Your task to perform on an android device: add a contact Image 0: 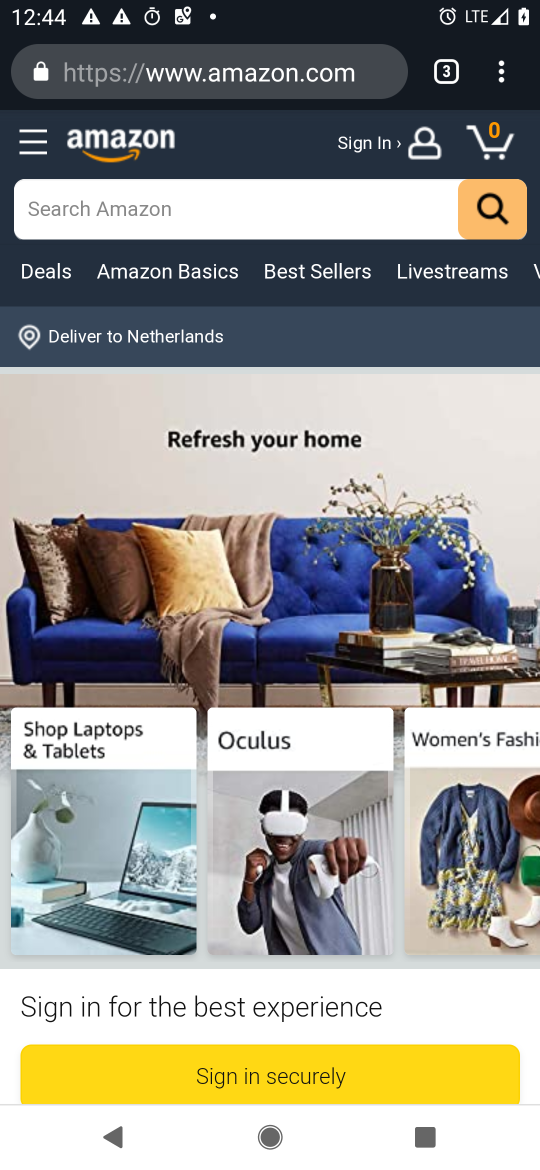
Step 0: press home button
Your task to perform on an android device: add a contact Image 1: 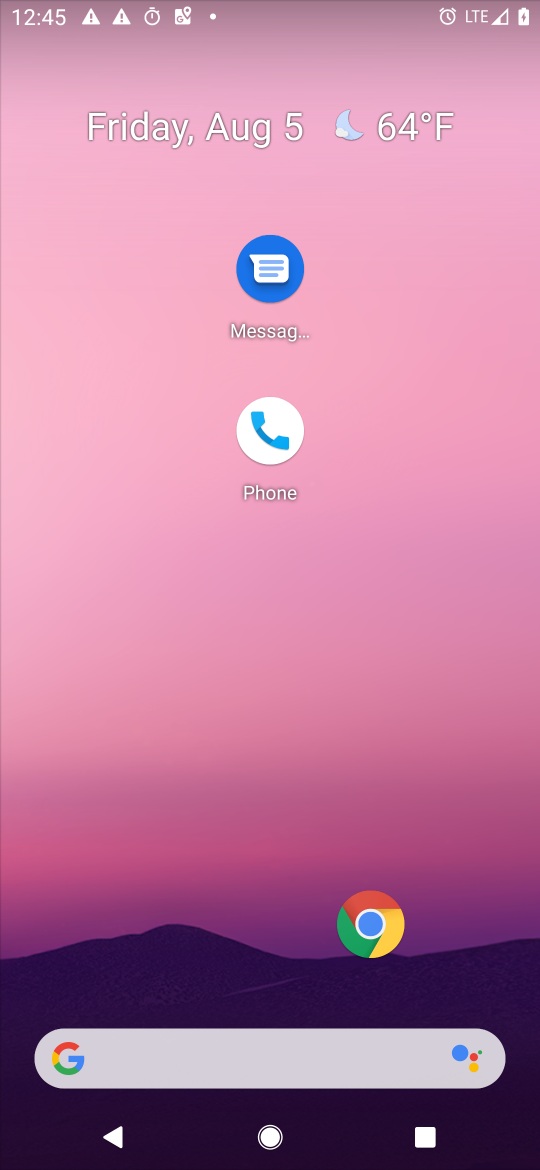
Step 1: click (340, 570)
Your task to perform on an android device: add a contact Image 2: 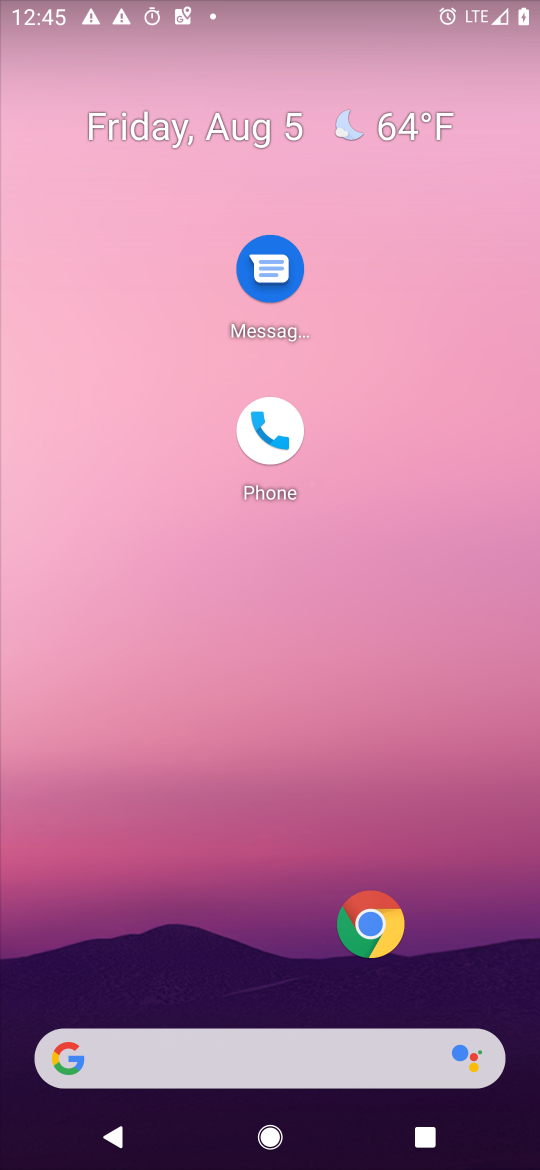
Step 2: drag from (278, 960) to (388, 232)
Your task to perform on an android device: add a contact Image 3: 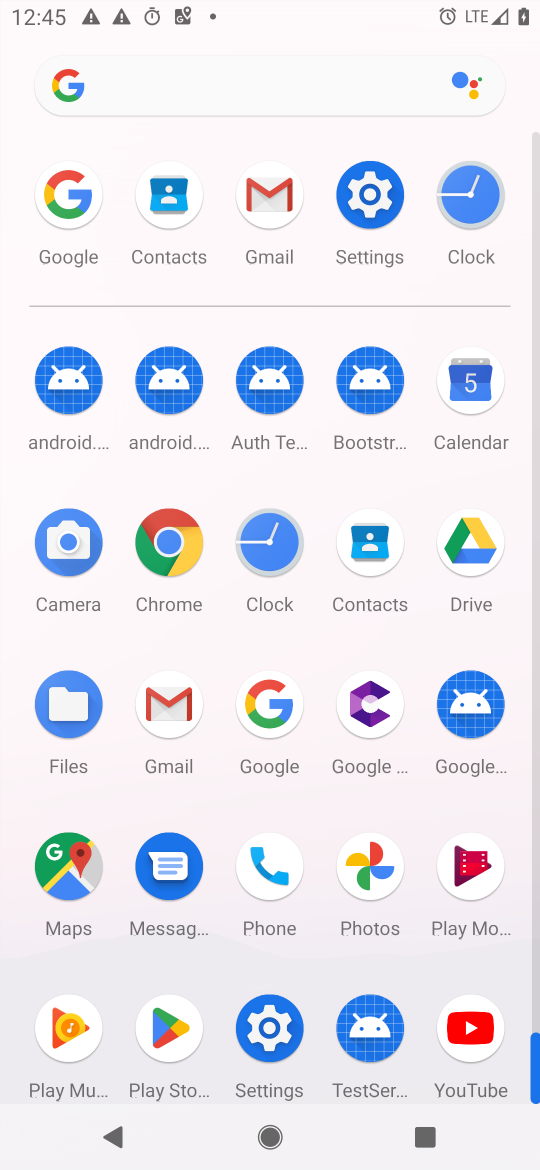
Step 3: click (378, 540)
Your task to perform on an android device: add a contact Image 4: 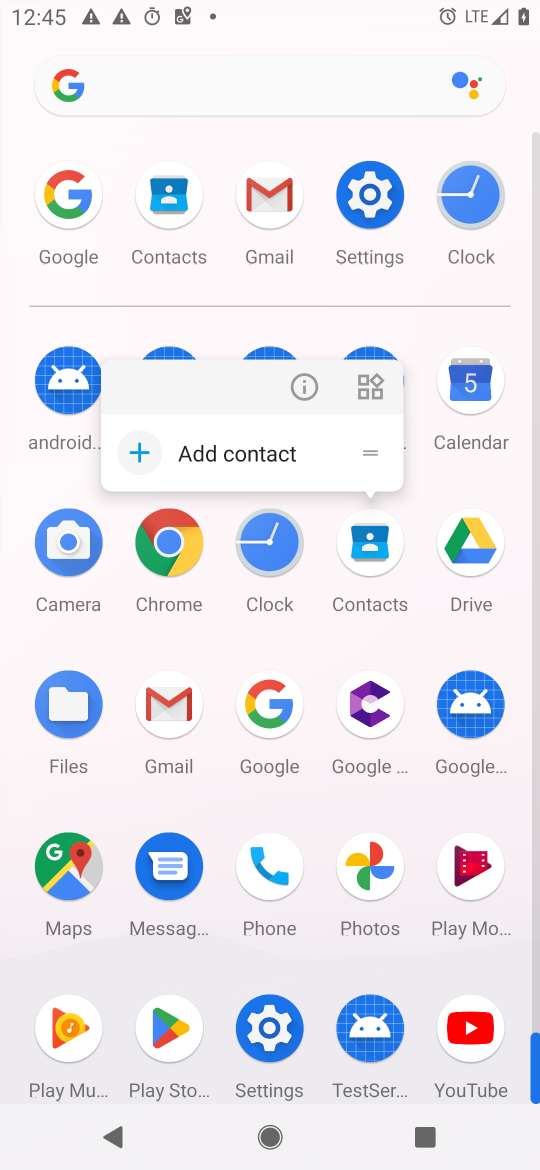
Step 4: click (291, 374)
Your task to perform on an android device: add a contact Image 5: 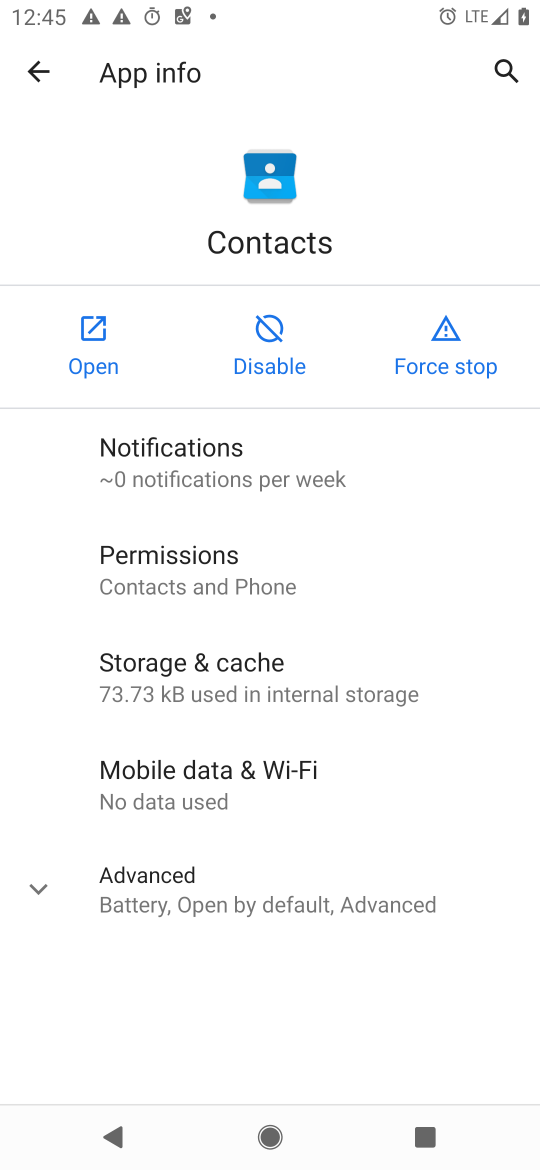
Step 5: click (84, 358)
Your task to perform on an android device: add a contact Image 6: 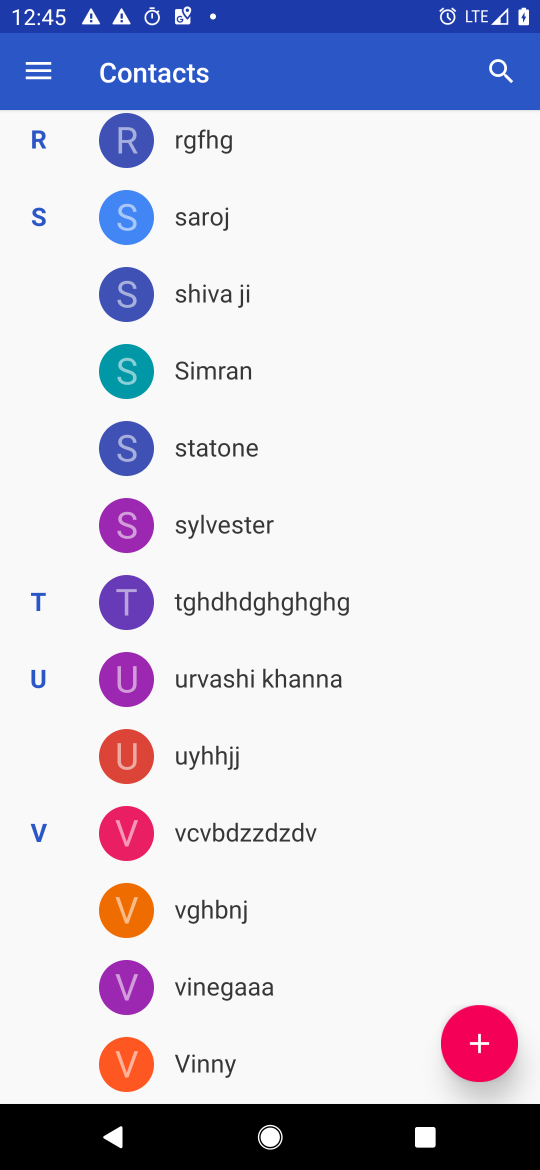
Step 6: click (497, 1028)
Your task to perform on an android device: add a contact Image 7: 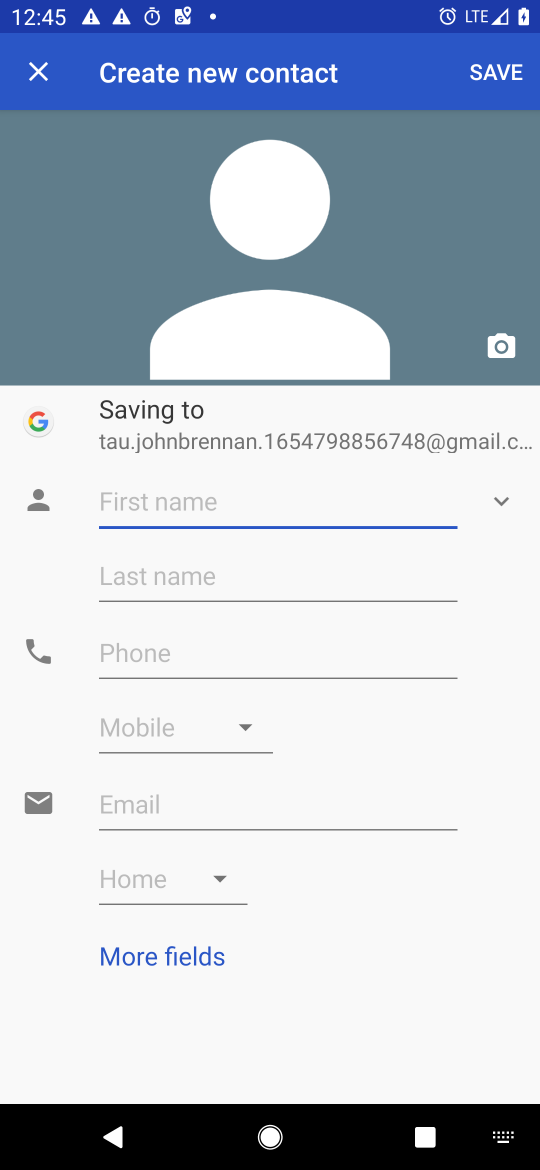
Step 7: type "mjbvn"
Your task to perform on an android device: add a contact Image 8: 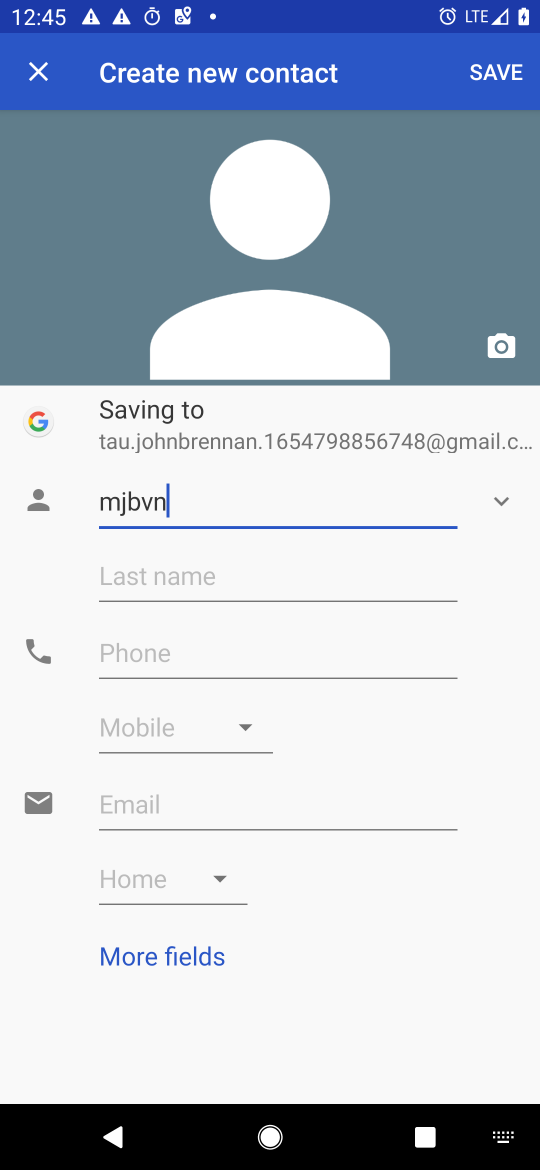
Step 8: click (507, 83)
Your task to perform on an android device: add a contact Image 9: 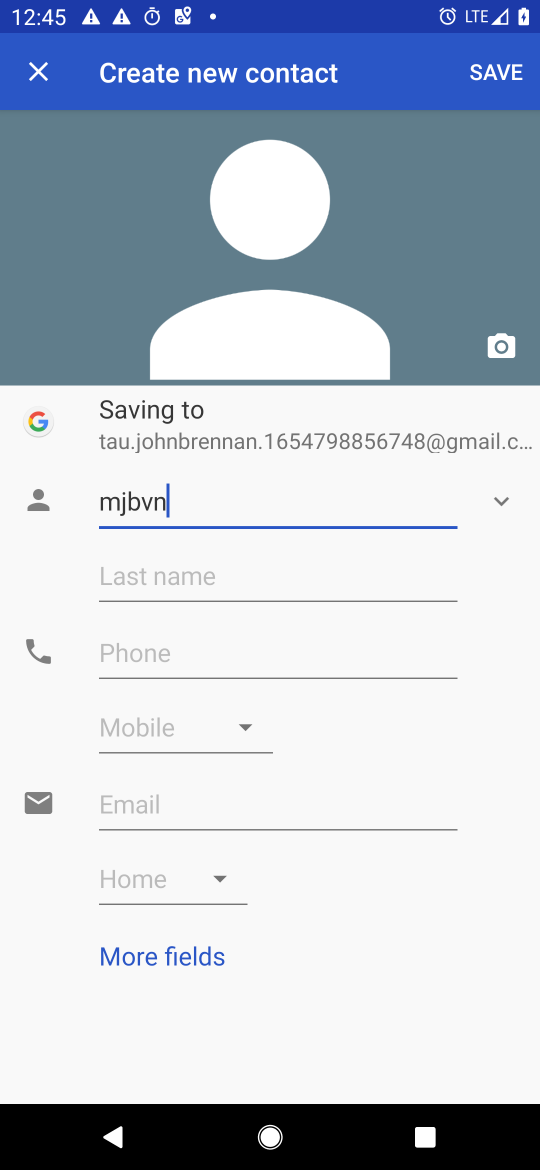
Step 9: task complete